Your task to perform on an android device: Open sound settings Image 0: 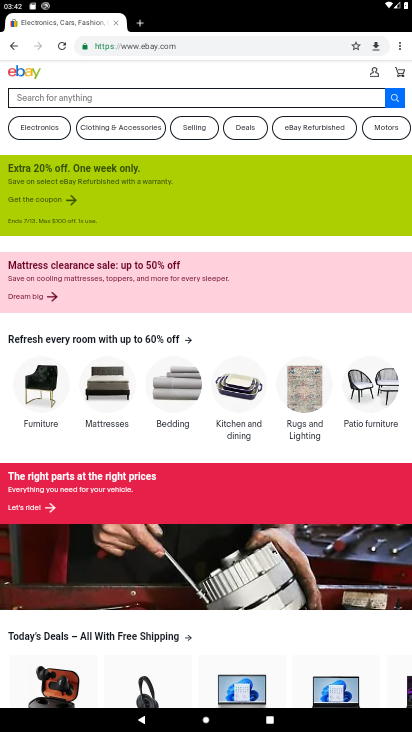
Step 0: press home button
Your task to perform on an android device: Open sound settings Image 1: 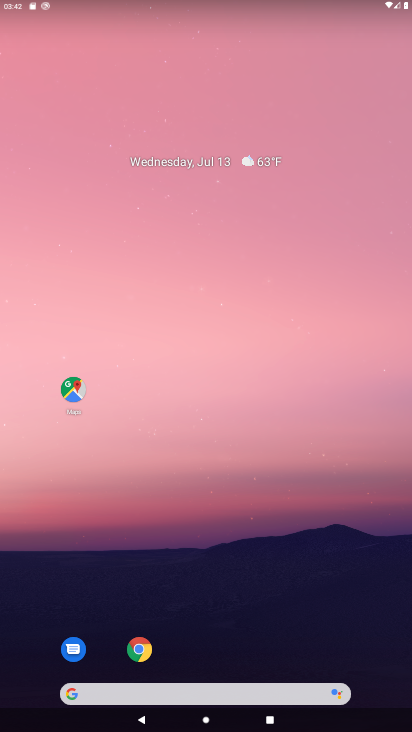
Step 1: drag from (226, 620) to (294, 8)
Your task to perform on an android device: Open sound settings Image 2: 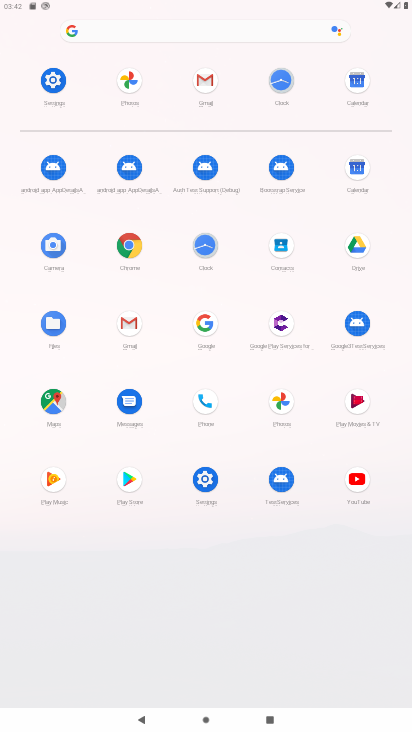
Step 2: click (49, 89)
Your task to perform on an android device: Open sound settings Image 3: 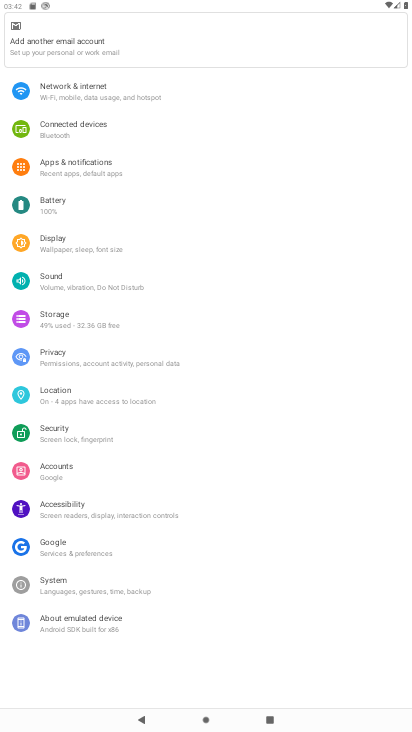
Step 3: click (105, 282)
Your task to perform on an android device: Open sound settings Image 4: 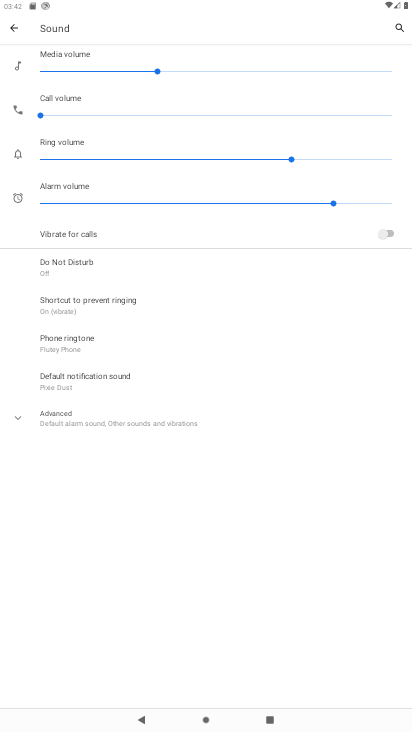
Step 4: task complete